Your task to perform on an android device: turn on notifications settings in the gmail app Image 0: 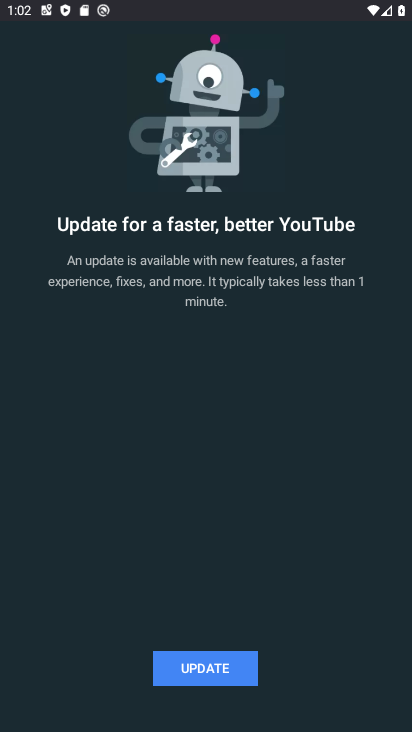
Step 0: press back button
Your task to perform on an android device: turn on notifications settings in the gmail app Image 1: 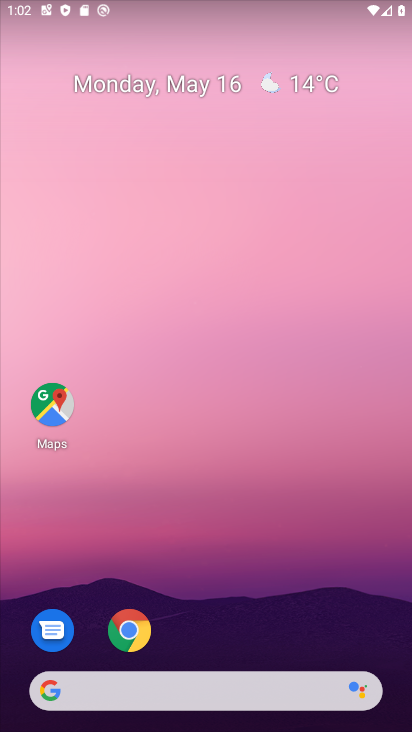
Step 1: click (55, 404)
Your task to perform on an android device: turn on notifications settings in the gmail app Image 2: 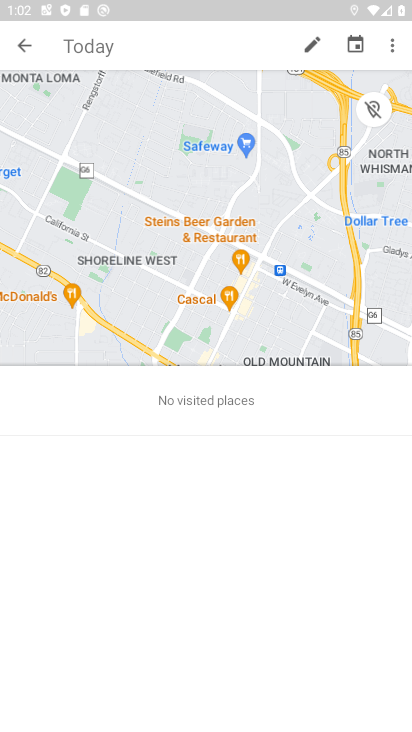
Step 2: click (33, 42)
Your task to perform on an android device: turn on notifications settings in the gmail app Image 3: 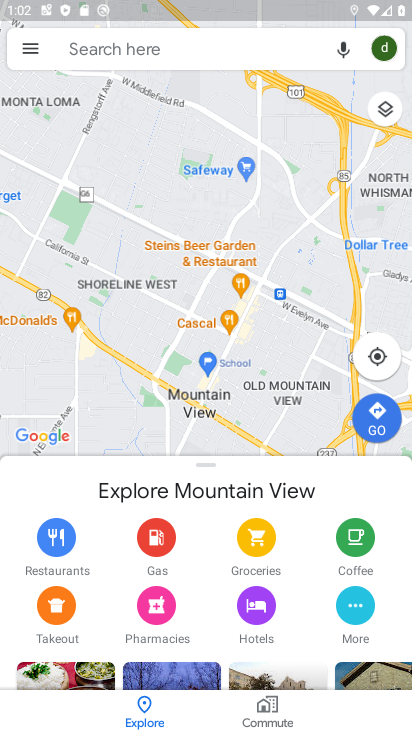
Step 3: press home button
Your task to perform on an android device: turn on notifications settings in the gmail app Image 4: 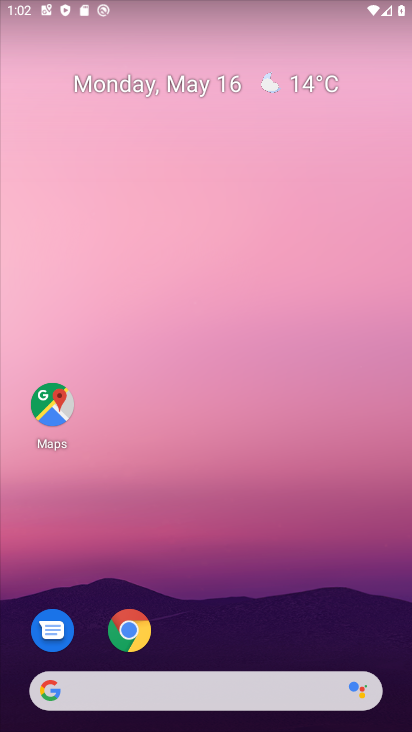
Step 4: drag from (252, 627) to (259, 174)
Your task to perform on an android device: turn on notifications settings in the gmail app Image 5: 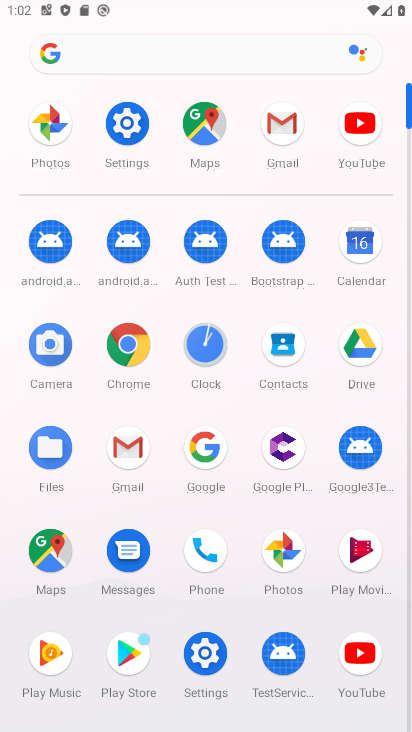
Step 5: click (276, 127)
Your task to perform on an android device: turn on notifications settings in the gmail app Image 6: 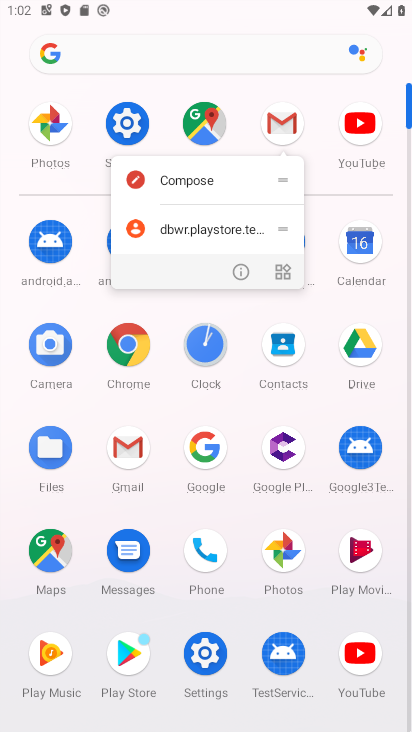
Step 6: click (237, 265)
Your task to perform on an android device: turn on notifications settings in the gmail app Image 7: 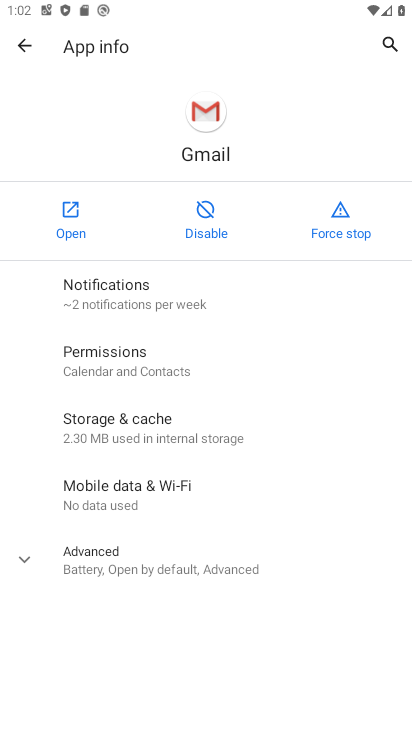
Step 7: click (172, 283)
Your task to perform on an android device: turn on notifications settings in the gmail app Image 8: 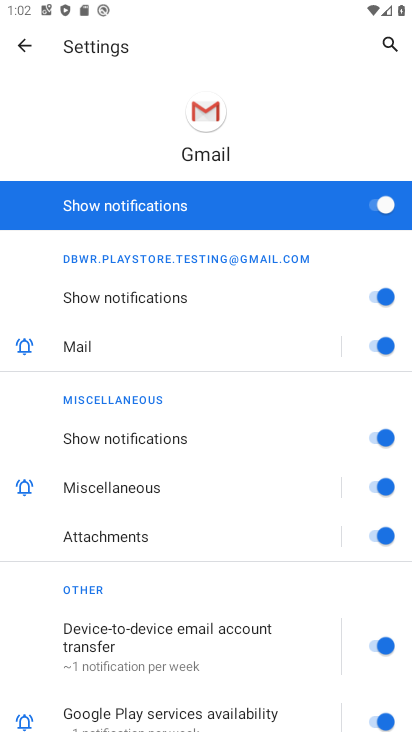
Step 8: task complete